Your task to perform on an android device: turn off airplane mode Image 0: 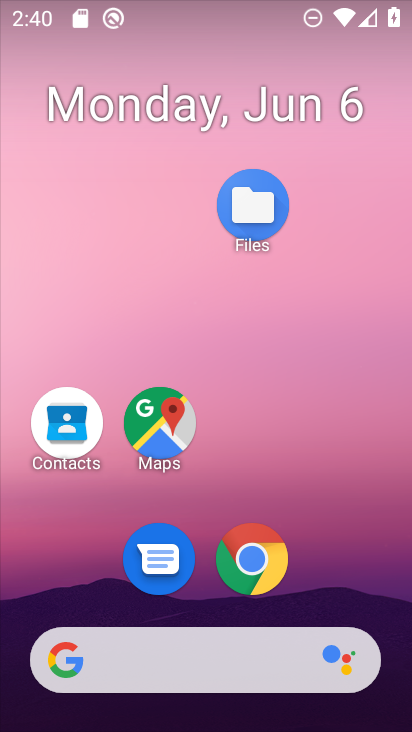
Step 0: drag from (208, 668) to (300, 152)
Your task to perform on an android device: turn off airplane mode Image 1: 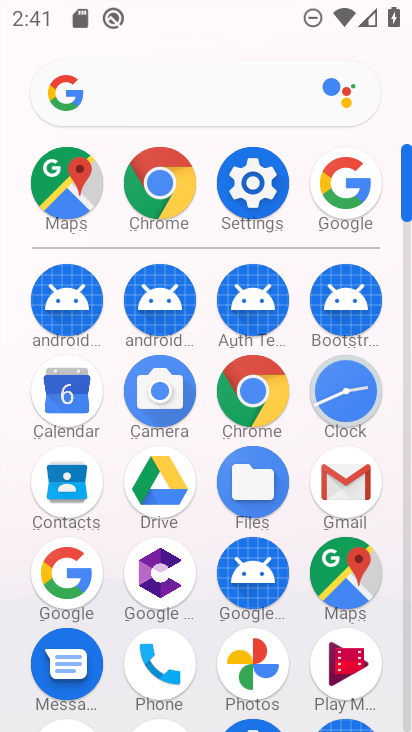
Step 1: click (258, 192)
Your task to perform on an android device: turn off airplane mode Image 2: 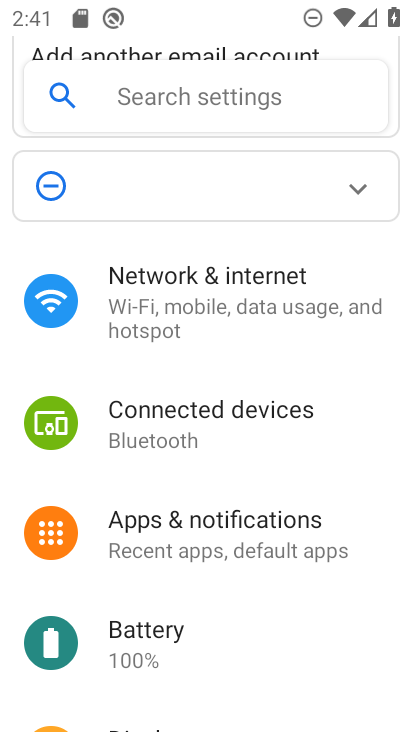
Step 2: drag from (248, 280) to (234, 697)
Your task to perform on an android device: turn off airplane mode Image 3: 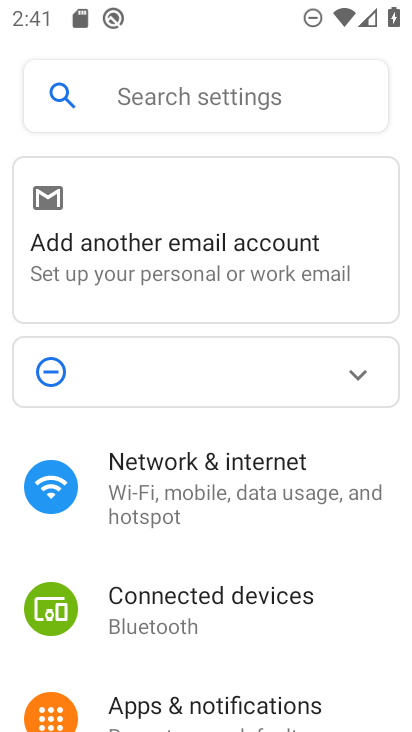
Step 3: drag from (278, 417) to (288, 658)
Your task to perform on an android device: turn off airplane mode Image 4: 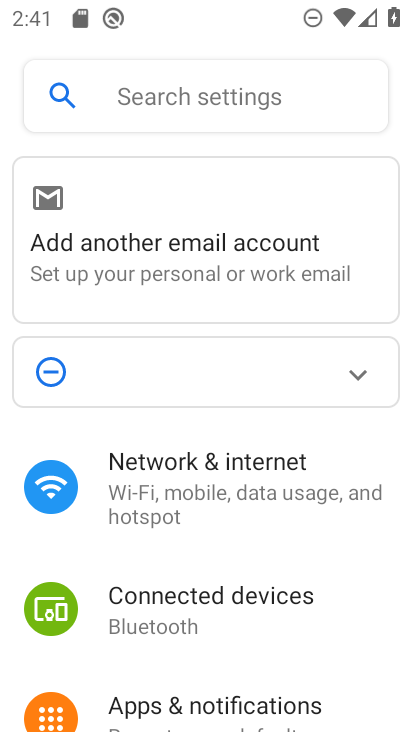
Step 4: click (260, 501)
Your task to perform on an android device: turn off airplane mode Image 5: 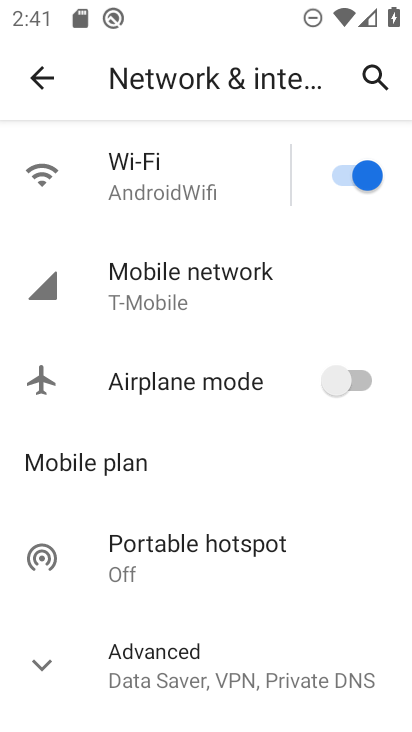
Step 5: task complete